Your task to perform on an android device: Go to network settings Image 0: 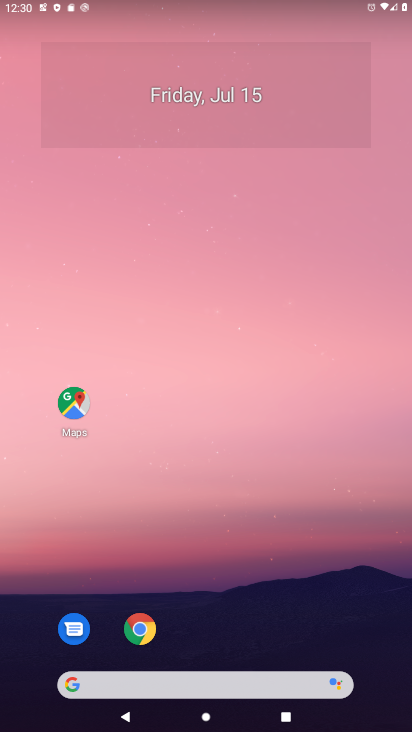
Step 0: press home button
Your task to perform on an android device: Go to network settings Image 1: 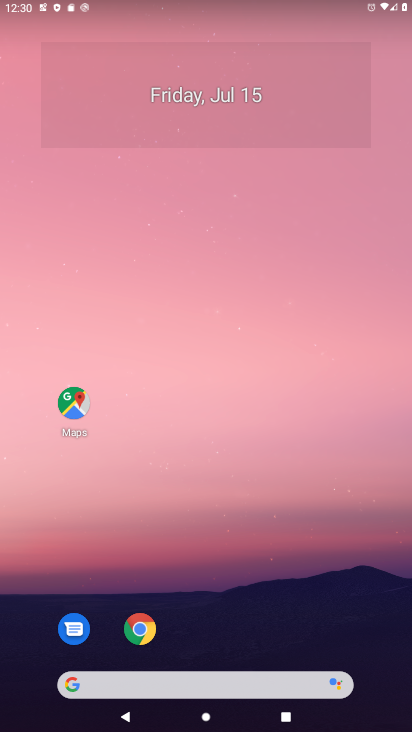
Step 1: drag from (238, 624) to (241, 15)
Your task to perform on an android device: Go to network settings Image 2: 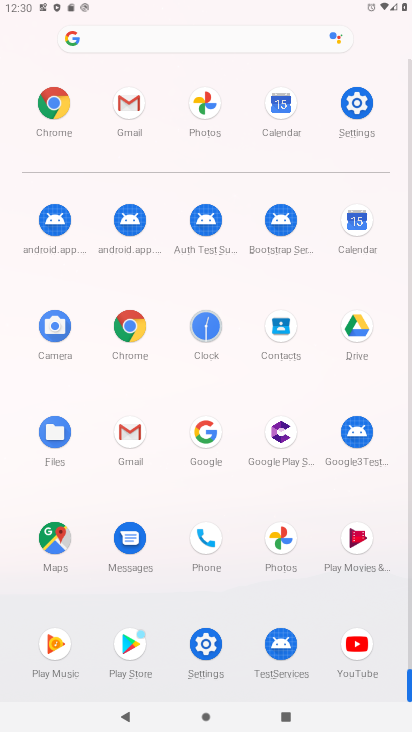
Step 2: click (359, 101)
Your task to perform on an android device: Go to network settings Image 3: 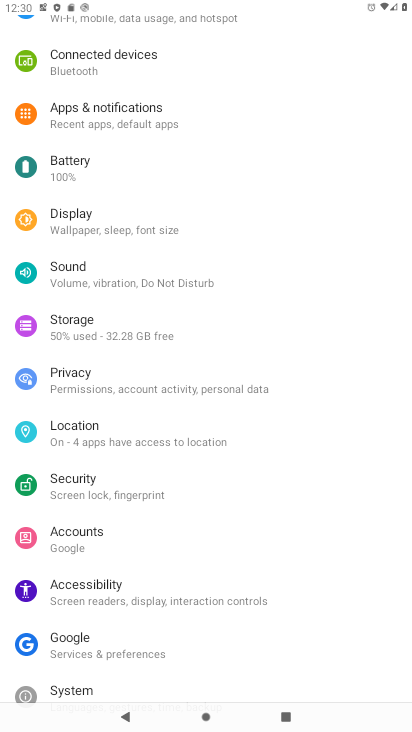
Step 3: drag from (263, 91) to (311, 718)
Your task to perform on an android device: Go to network settings Image 4: 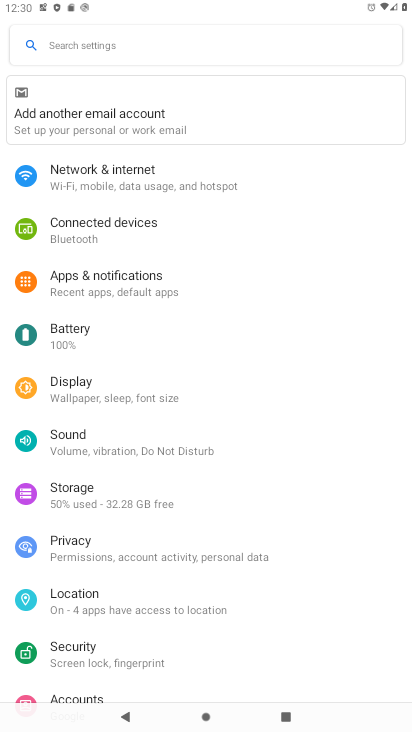
Step 4: click (96, 173)
Your task to perform on an android device: Go to network settings Image 5: 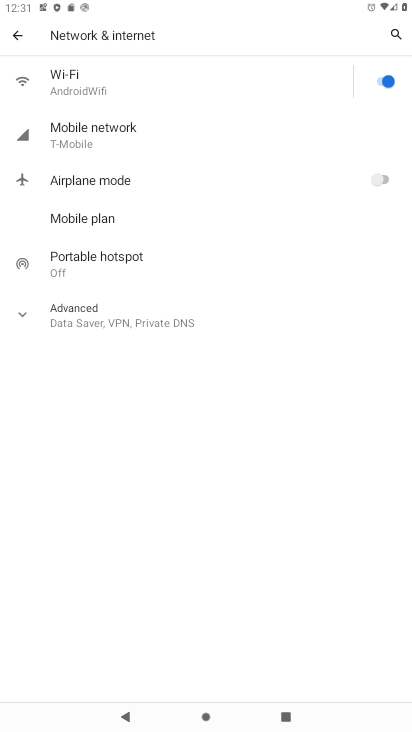
Step 5: task complete